Your task to perform on an android device: create a new album in the google photos Image 0: 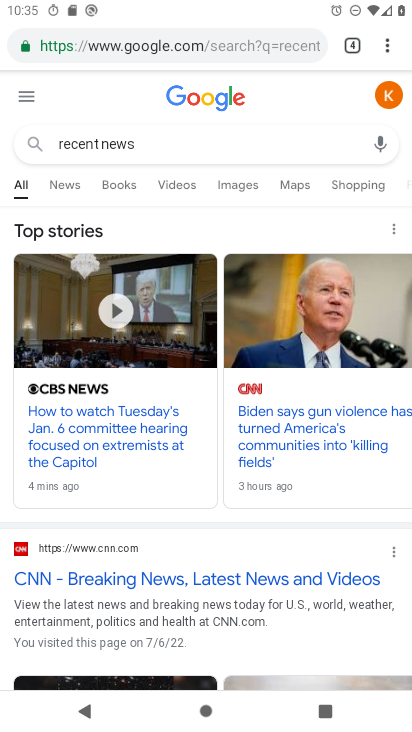
Step 0: press back button
Your task to perform on an android device: create a new album in the google photos Image 1: 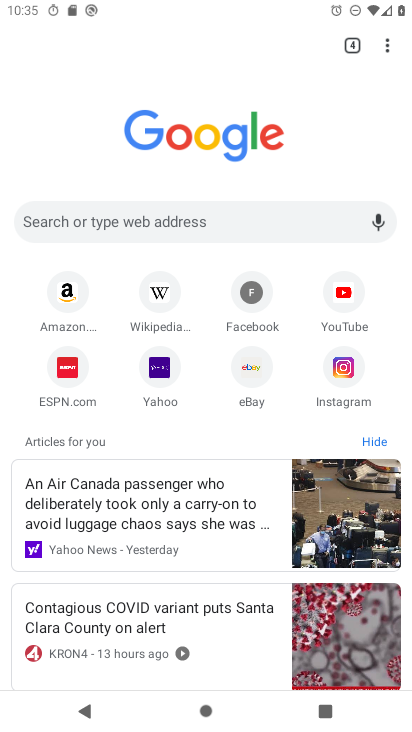
Step 1: press back button
Your task to perform on an android device: create a new album in the google photos Image 2: 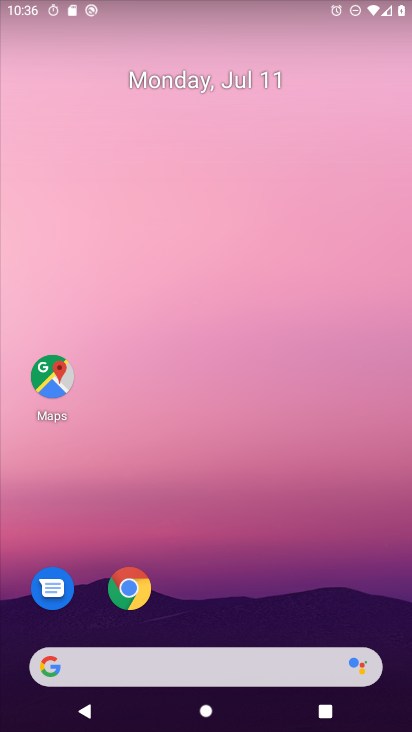
Step 2: drag from (186, 641) to (291, 32)
Your task to perform on an android device: create a new album in the google photos Image 3: 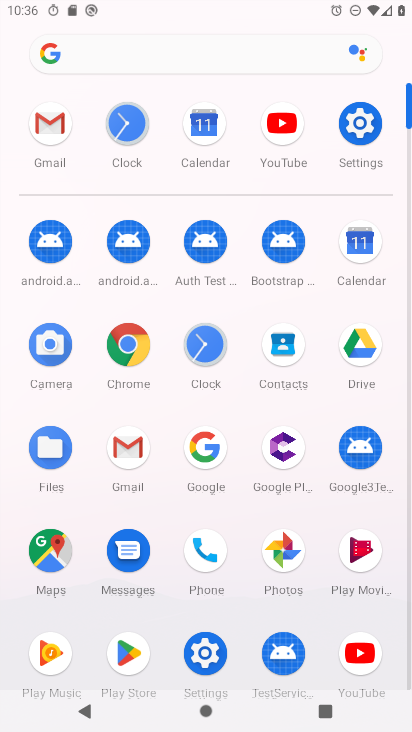
Step 3: click (284, 557)
Your task to perform on an android device: create a new album in the google photos Image 4: 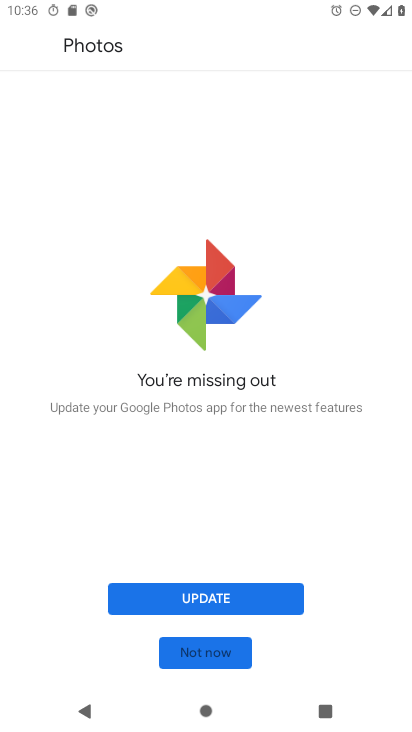
Step 4: click (209, 655)
Your task to perform on an android device: create a new album in the google photos Image 5: 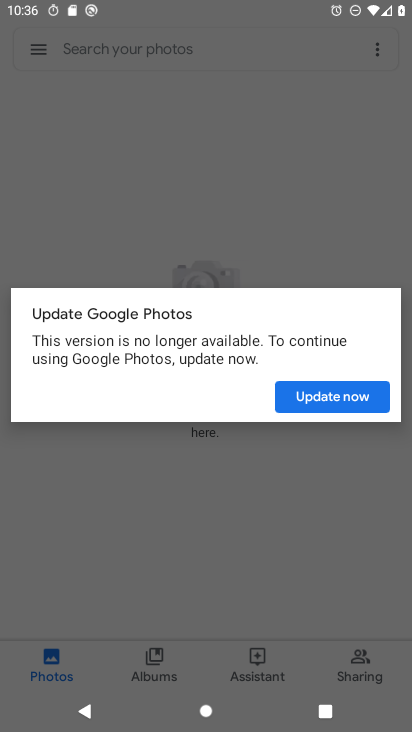
Step 5: click (308, 398)
Your task to perform on an android device: create a new album in the google photos Image 6: 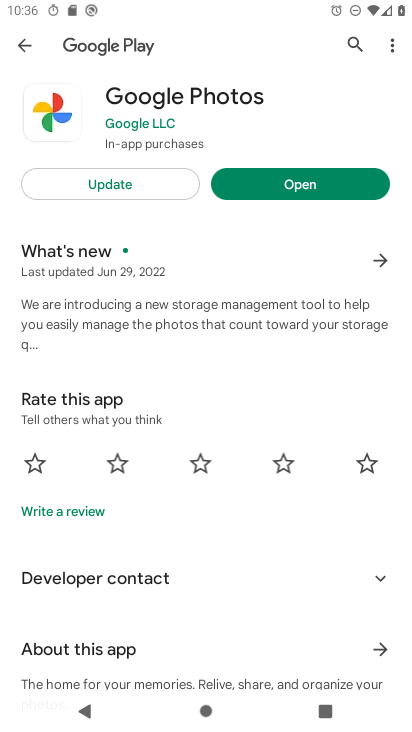
Step 6: click (292, 183)
Your task to perform on an android device: create a new album in the google photos Image 7: 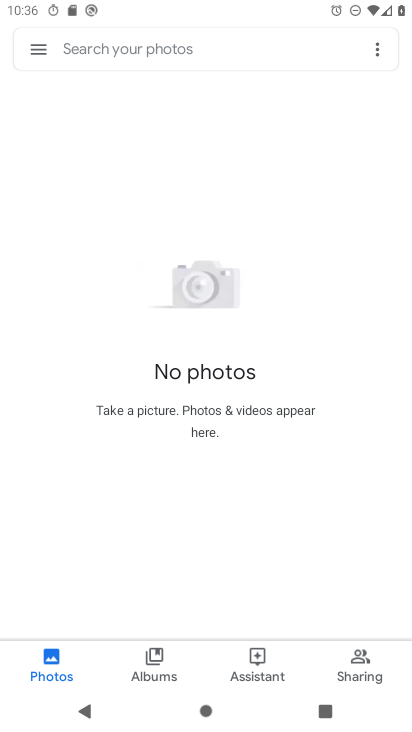
Step 7: click (162, 665)
Your task to perform on an android device: create a new album in the google photos Image 8: 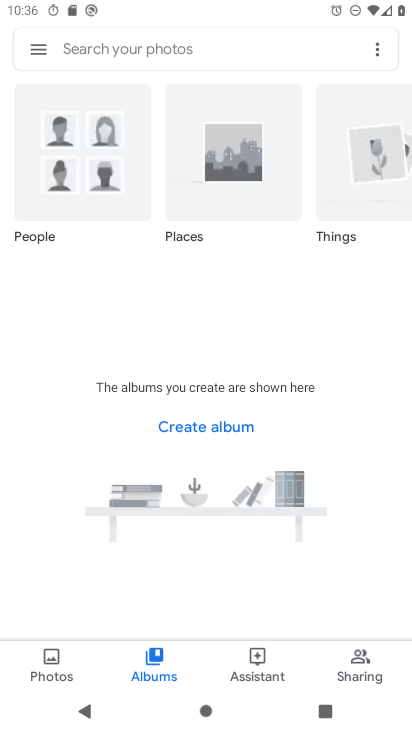
Step 8: click (211, 421)
Your task to perform on an android device: create a new album in the google photos Image 9: 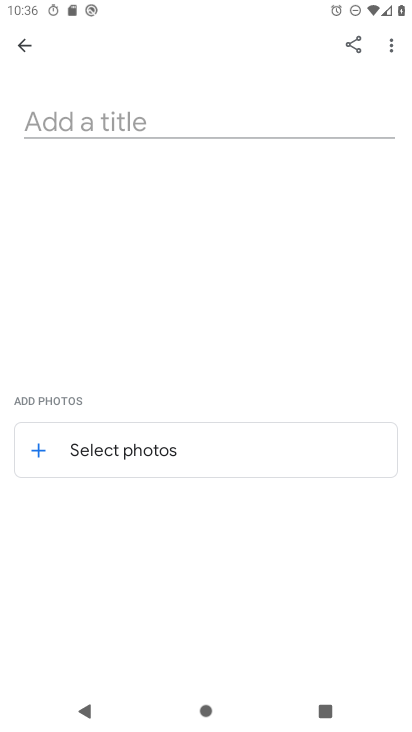
Step 9: click (127, 120)
Your task to perform on an android device: create a new album in the google photos Image 10: 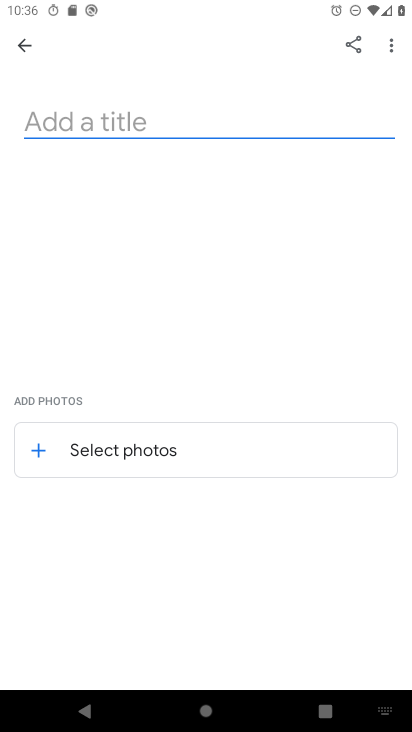
Step 10: type "bdn"
Your task to perform on an android device: create a new album in the google photos Image 11: 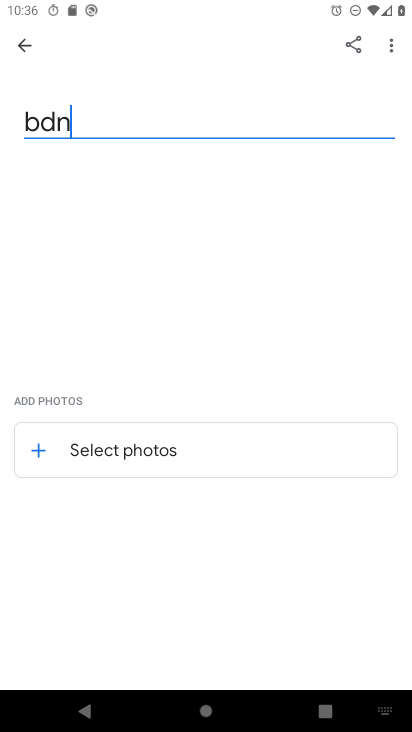
Step 11: click (96, 460)
Your task to perform on an android device: create a new album in the google photos Image 12: 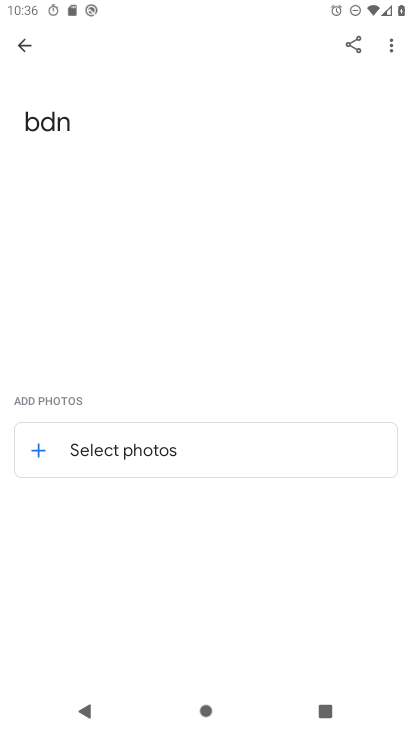
Step 12: click (88, 445)
Your task to perform on an android device: create a new album in the google photos Image 13: 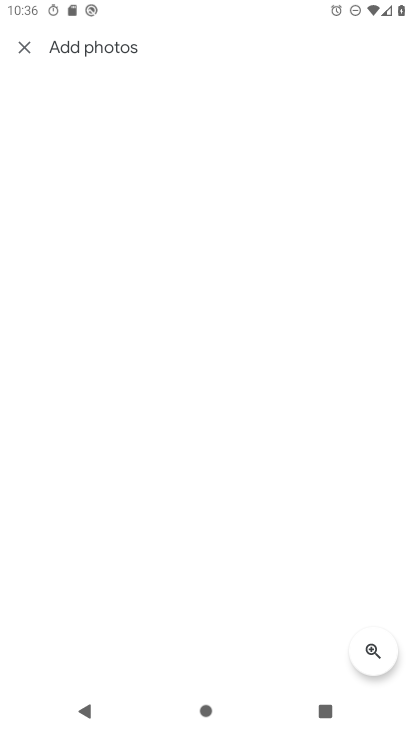
Step 13: task complete